Your task to perform on an android device: change text size in settings app Image 0: 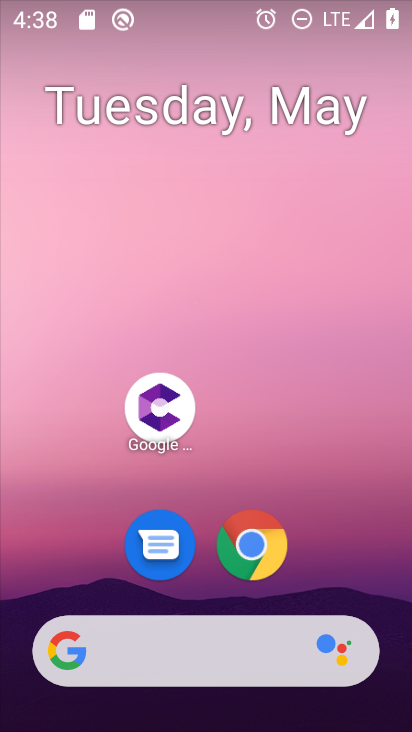
Step 0: drag from (348, 547) to (371, 219)
Your task to perform on an android device: change text size in settings app Image 1: 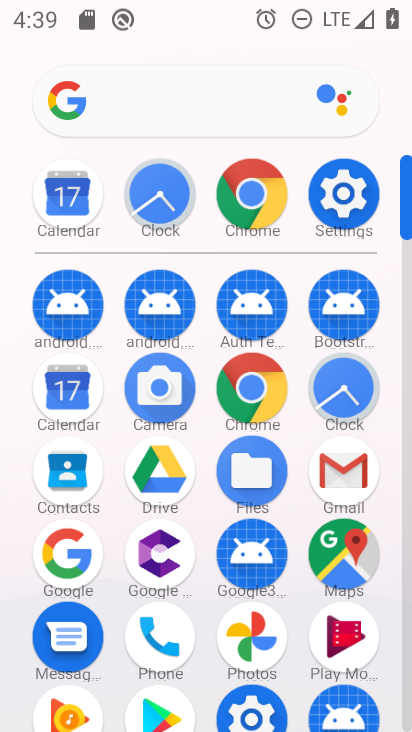
Step 1: click (353, 211)
Your task to perform on an android device: change text size in settings app Image 2: 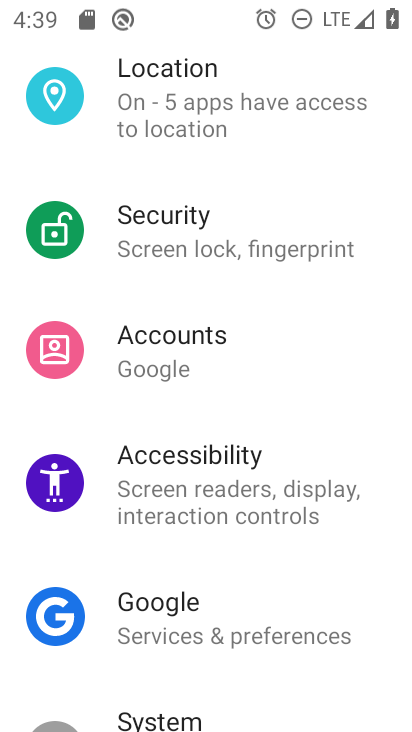
Step 2: drag from (363, 296) to (360, 381)
Your task to perform on an android device: change text size in settings app Image 3: 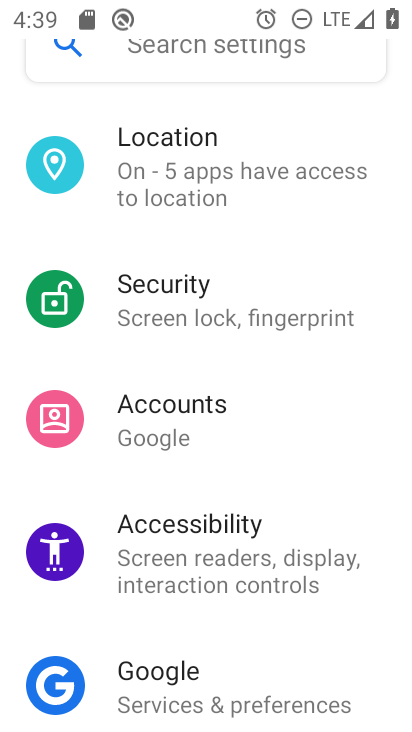
Step 3: drag from (358, 262) to (360, 387)
Your task to perform on an android device: change text size in settings app Image 4: 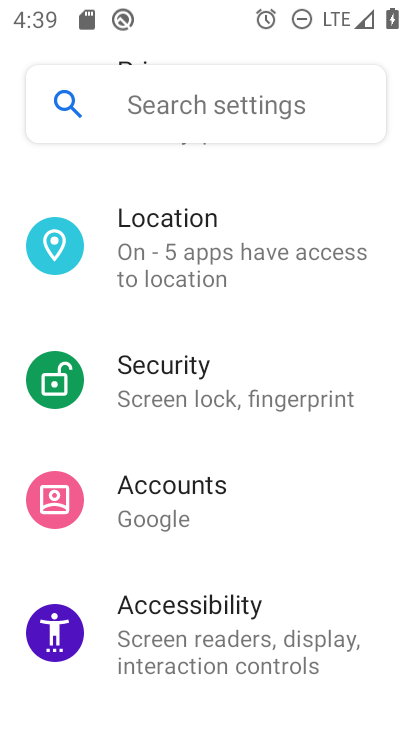
Step 4: drag from (368, 263) to (366, 350)
Your task to perform on an android device: change text size in settings app Image 5: 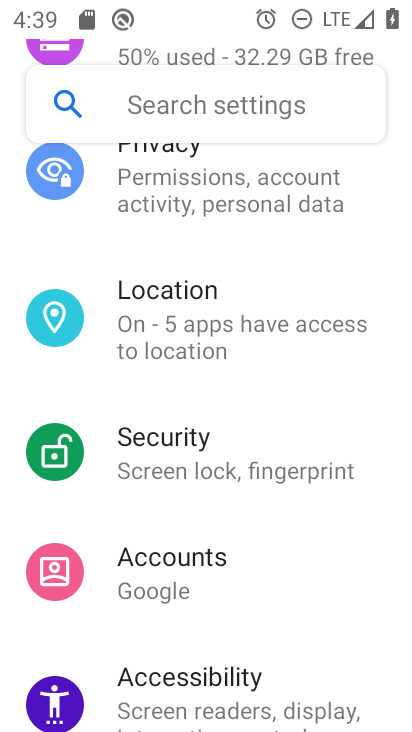
Step 5: drag from (366, 264) to (367, 334)
Your task to perform on an android device: change text size in settings app Image 6: 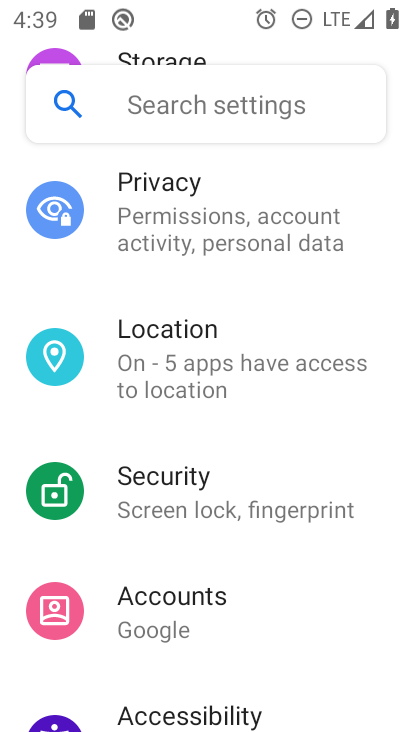
Step 6: drag from (362, 234) to (349, 337)
Your task to perform on an android device: change text size in settings app Image 7: 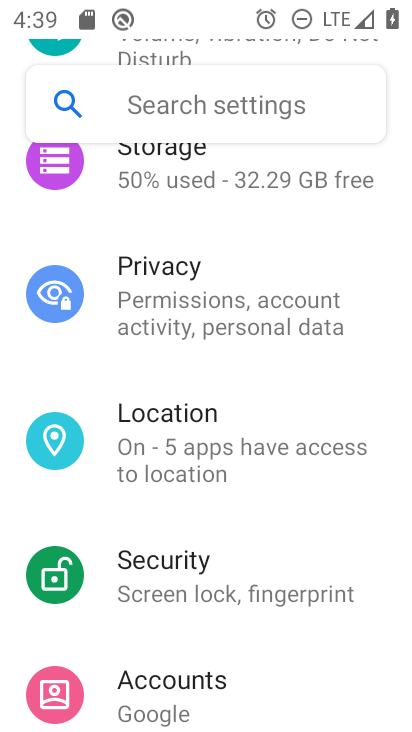
Step 7: drag from (319, 422) to (327, 383)
Your task to perform on an android device: change text size in settings app Image 8: 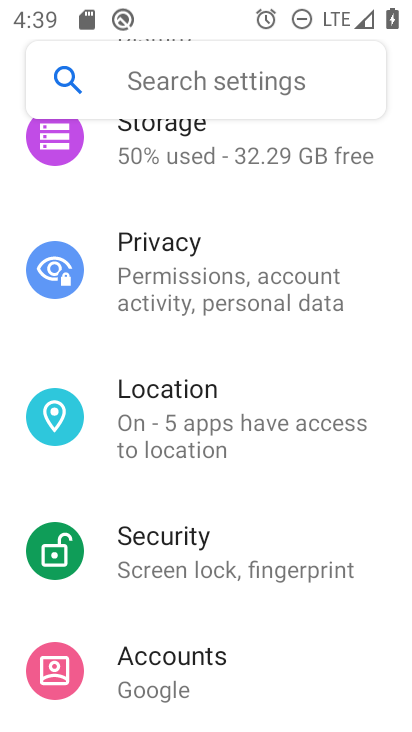
Step 8: drag from (365, 228) to (361, 348)
Your task to perform on an android device: change text size in settings app Image 9: 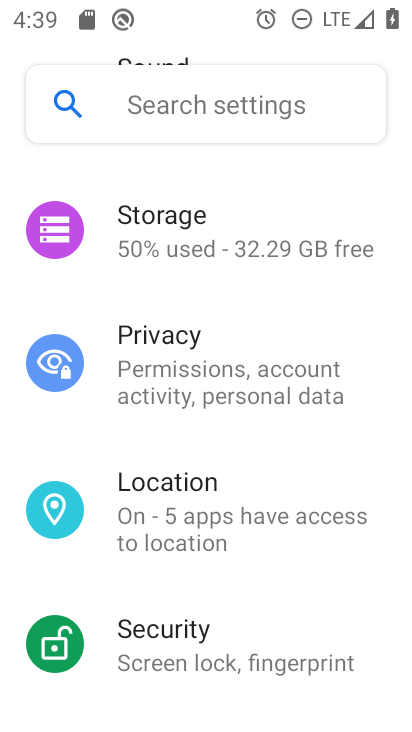
Step 9: drag from (369, 216) to (359, 367)
Your task to perform on an android device: change text size in settings app Image 10: 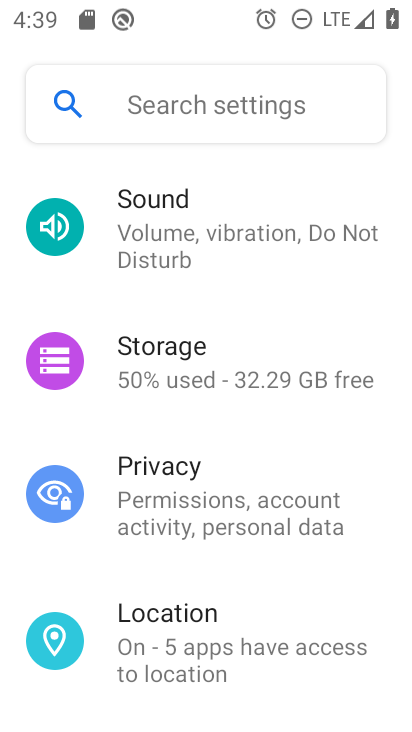
Step 10: drag from (366, 197) to (366, 361)
Your task to perform on an android device: change text size in settings app Image 11: 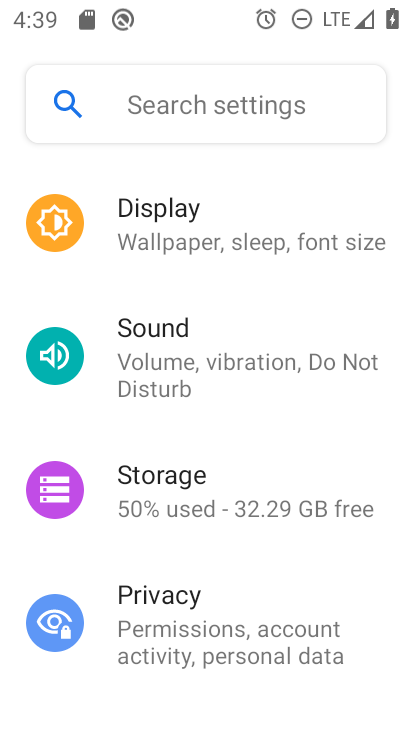
Step 11: click (318, 254)
Your task to perform on an android device: change text size in settings app Image 12: 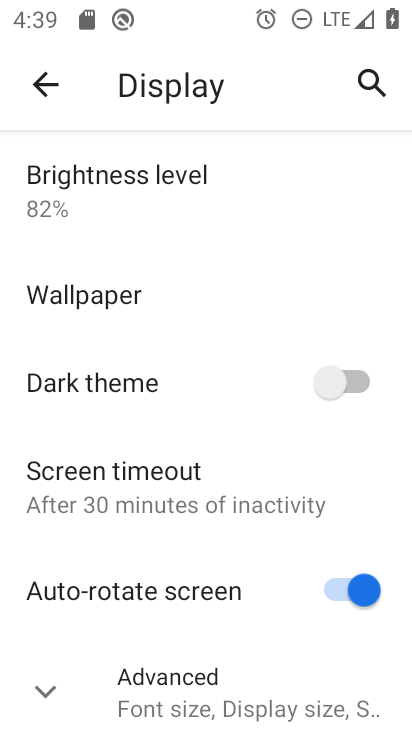
Step 12: click (206, 675)
Your task to perform on an android device: change text size in settings app Image 13: 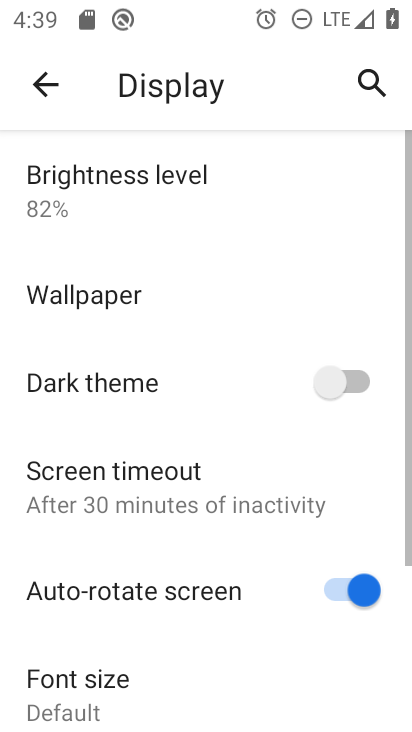
Step 13: drag from (270, 618) to (260, 359)
Your task to perform on an android device: change text size in settings app Image 14: 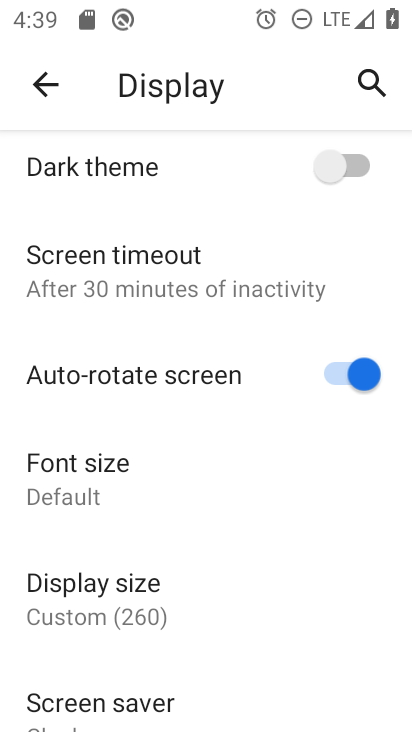
Step 14: drag from (220, 612) to (244, 402)
Your task to perform on an android device: change text size in settings app Image 15: 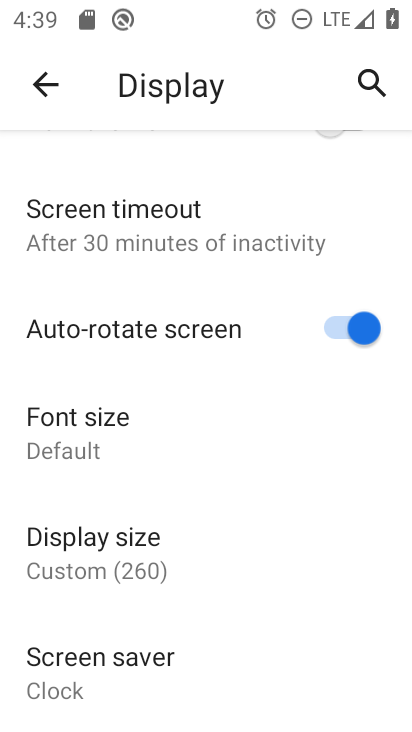
Step 15: click (108, 425)
Your task to perform on an android device: change text size in settings app Image 16: 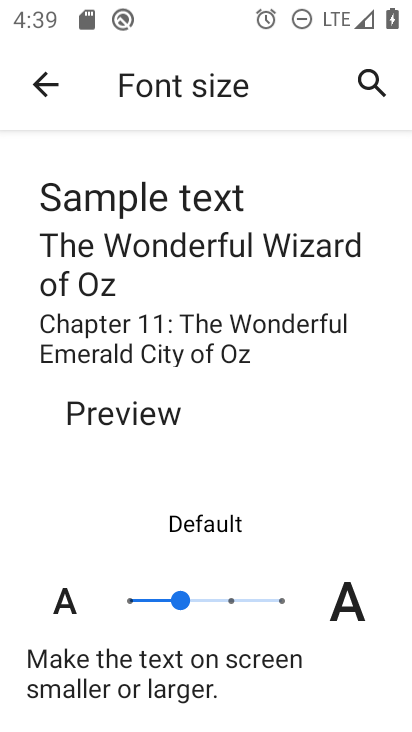
Step 16: click (229, 606)
Your task to perform on an android device: change text size in settings app Image 17: 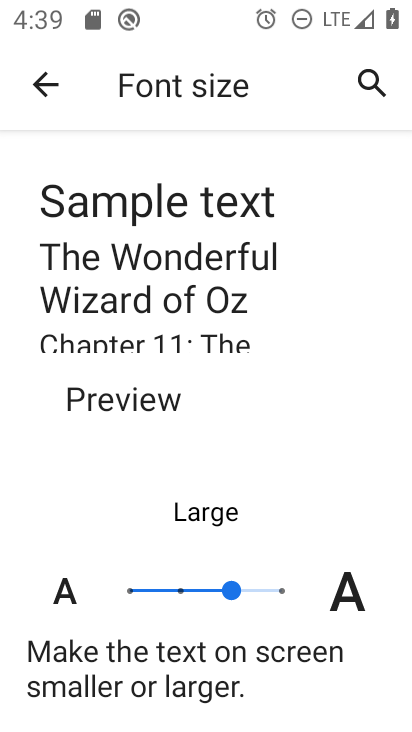
Step 17: task complete